Your task to perform on an android device: turn off picture-in-picture Image 0: 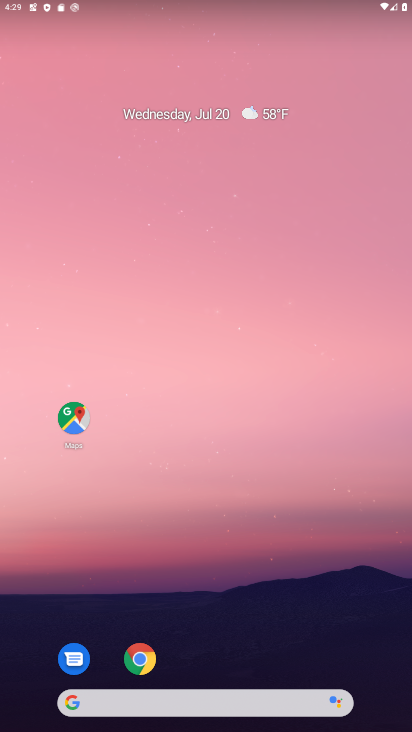
Step 0: drag from (171, 693) to (378, 153)
Your task to perform on an android device: turn off picture-in-picture Image 1: 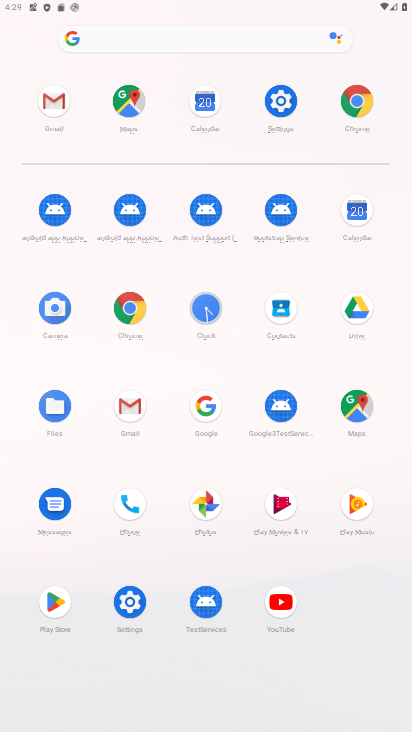
Step 1: click (279, 108)
Your task to perform on an android device: turn off picture-in-picture Image 2: 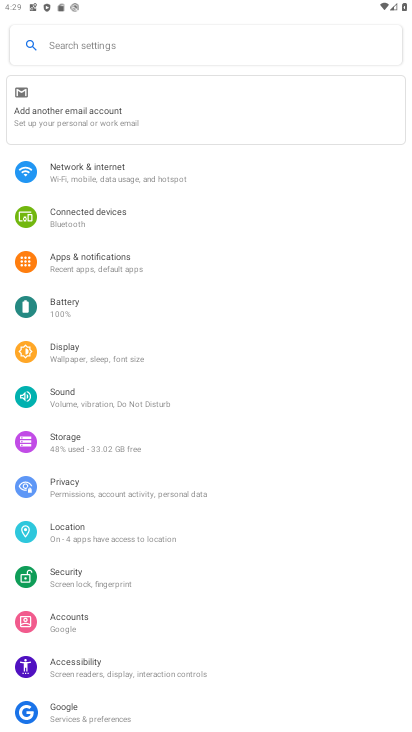
Step 2: click (115, 267)
Your task to perform on an android device: turn off picture-in-picture Image 3: 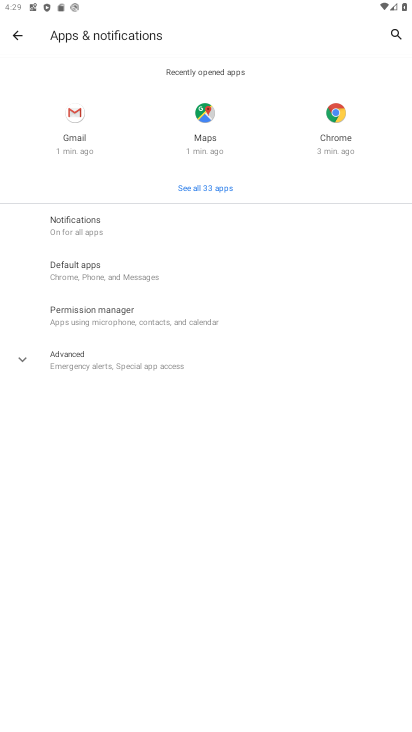
Step 3: click (101, 366)
Your task to perform on an android device: turn off picture-in-picture Image 4: 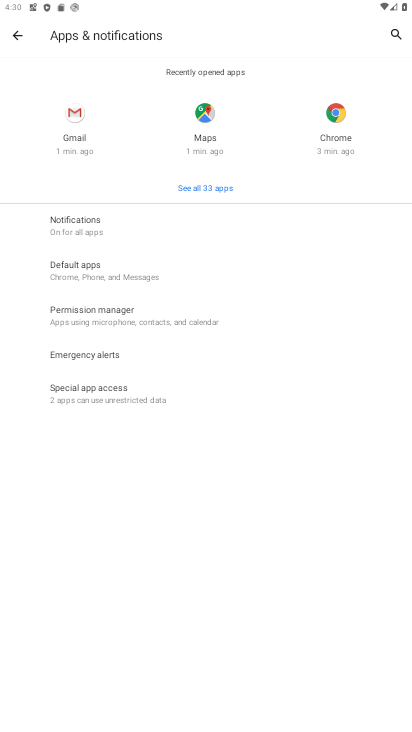
Step 4: click (101, 395)
Your task to perform on an android device: turn off picture-in-picture Image 5: 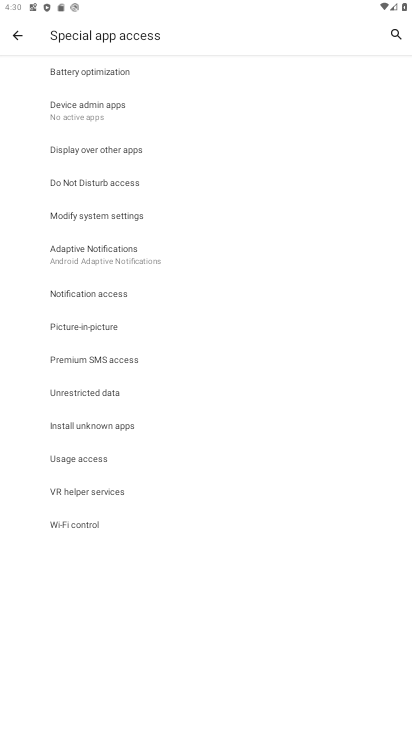
Step 5: click (100, 331)
Your task to perform on an android device: turn off picture-in-picture Image 6: 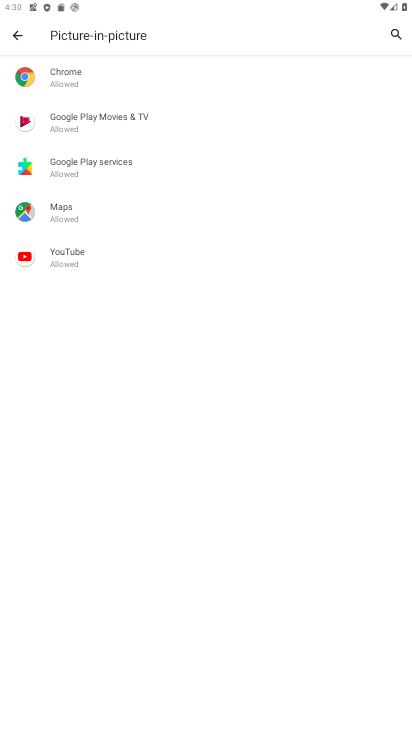
Step 6: click (66, 76)
Your task to perform on an android device: turn off picture-in-picture Image 7: 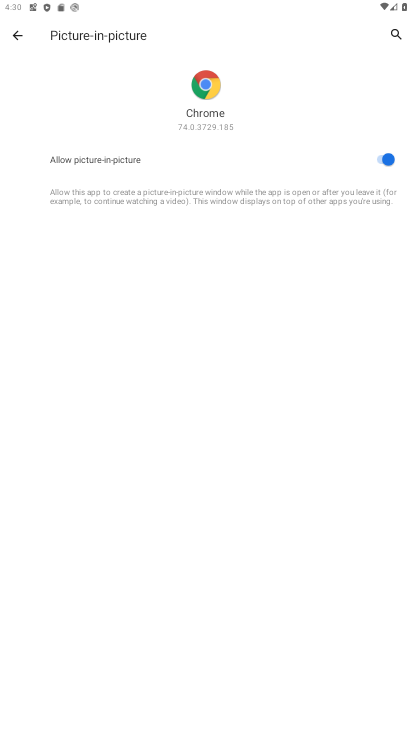
Step 7: click (382, 156)
Your task to perform on an android device: turn off picture-in-picture Image 8: 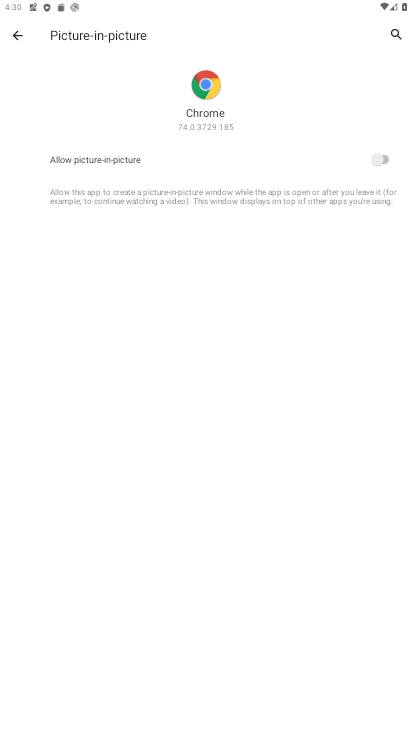
Step 8: press back button
Your task to perform on an android device: turn off picture-in-picture Image 9: 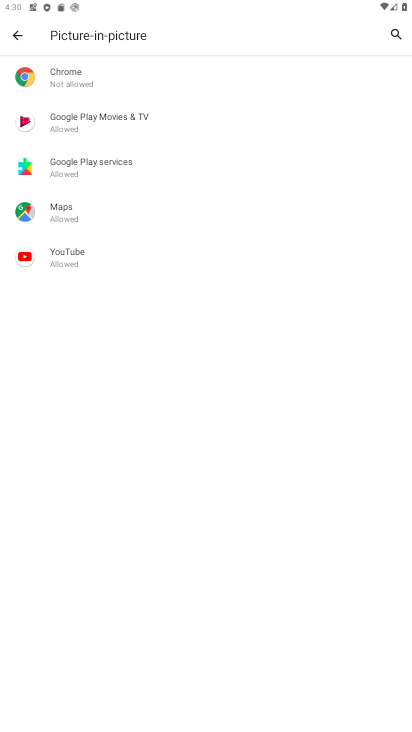
Step 9: click (108, 125)
Your task to perform on an android device: turn off picture-in-picture Image 10: 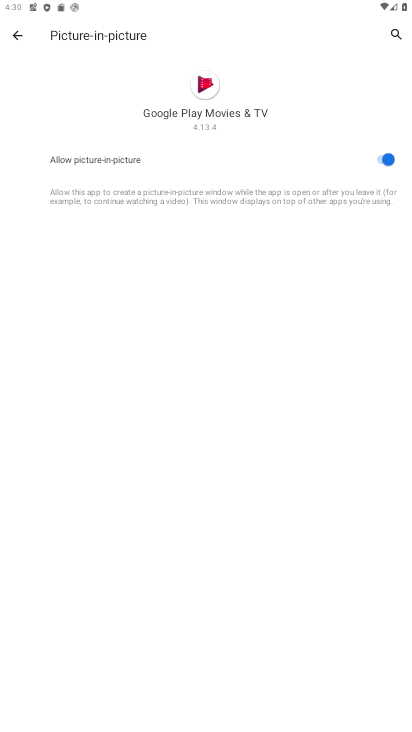
Step 10: click (383, 153)
Your task to perform on an android device: turn off picture-in-picture Image 11: 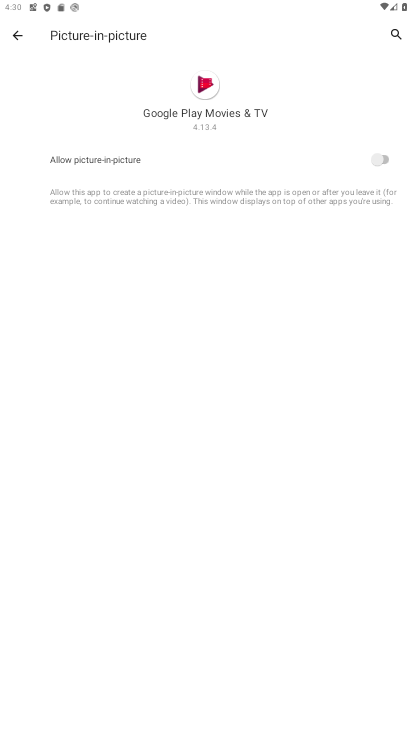
Step 11: press back button
Your task to perform on an android device: turn off picture-in-picture Image 12: 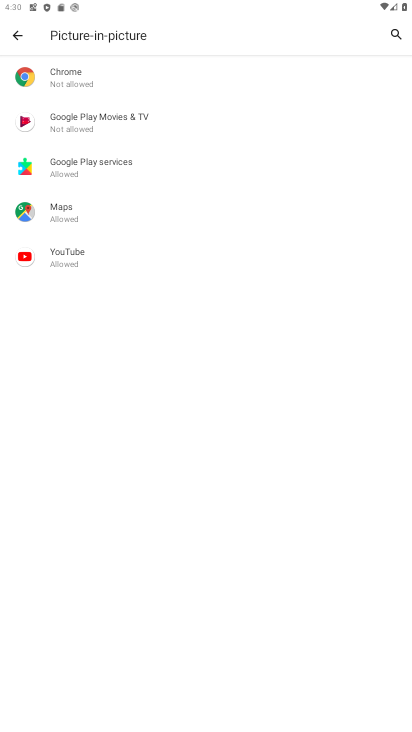
Step 12: click (86, 163)
Your task to perform on an android device: turn off picture-in-picture Image 13: 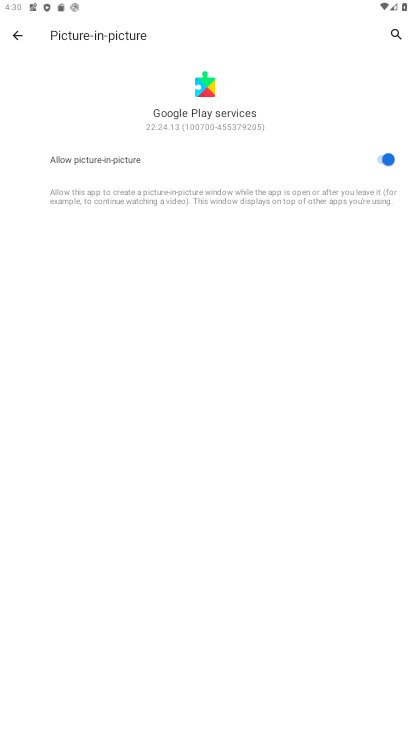
Step 13: click (386, 155)
Your task to perform on an android device: turn off picture-in-picture Image 14: 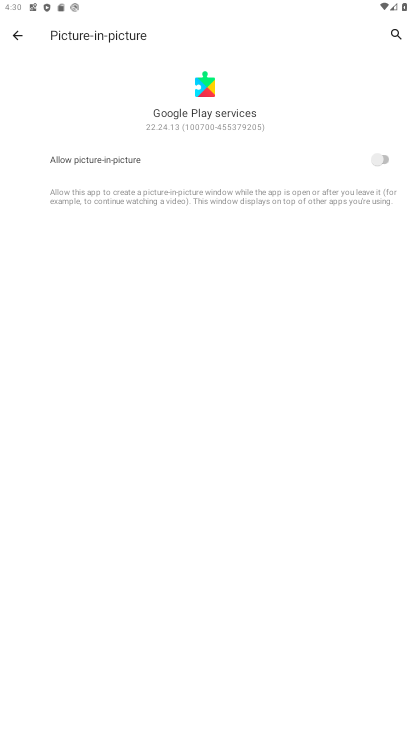
Step 14: press back button
Your task to perform on an android device: turn off picture-in-picture Image 15: 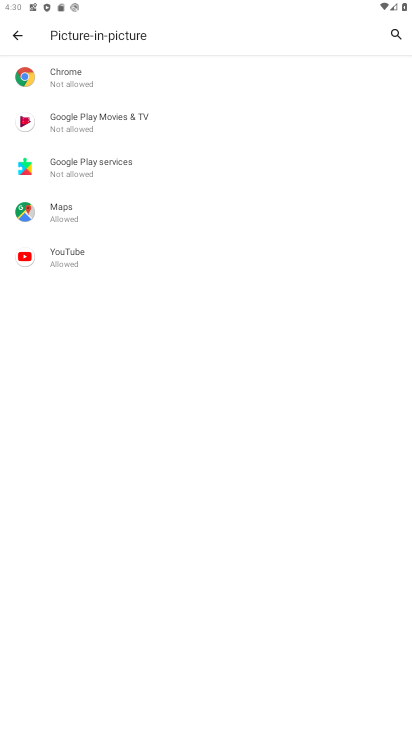
Step 15: click (66, 209)
Your task to perform on an android device: turn off picture-in-picture Image 16: 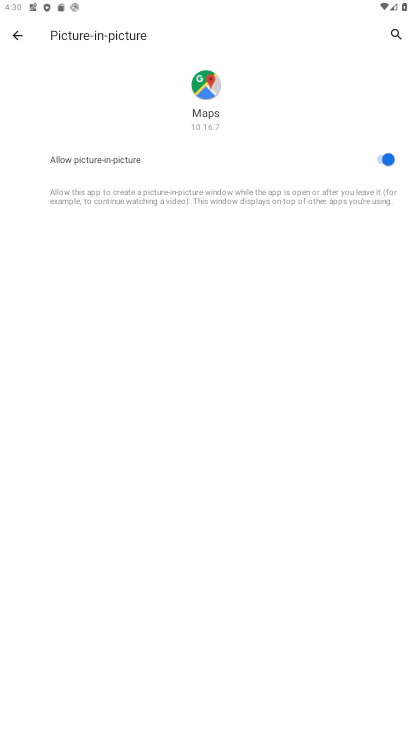
Step 16: click (382, 154)
Your task to perform on an android device: turn off picture-in-picture Image 17: 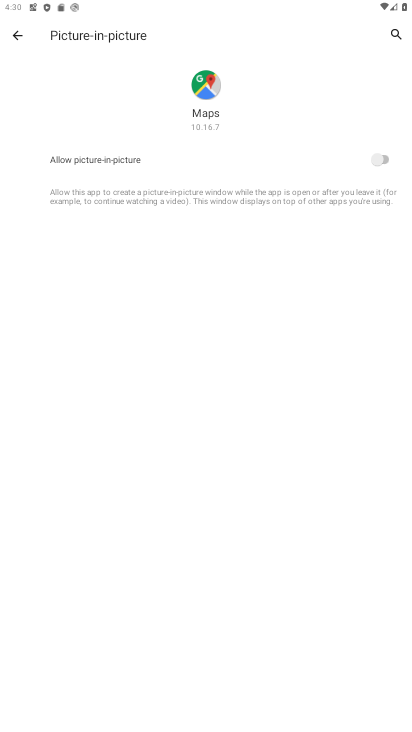
Step 17: press back button
Your task to perform on an android device: turn off picture-in-picture Image 18: 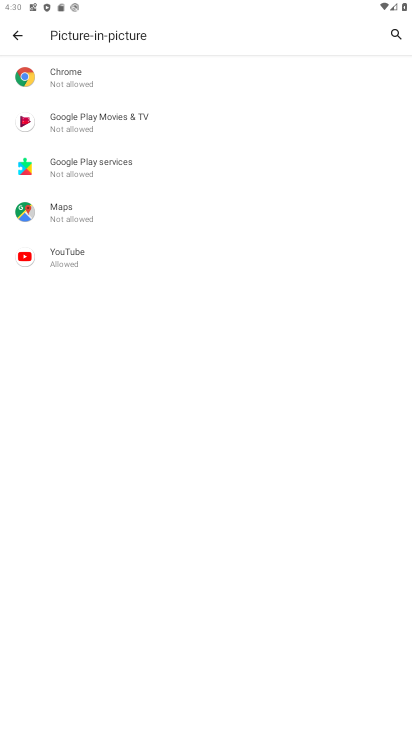
Step 18: click (67, 262)
Your task to perform on an android device: turn off picture-in-picture Image 19: 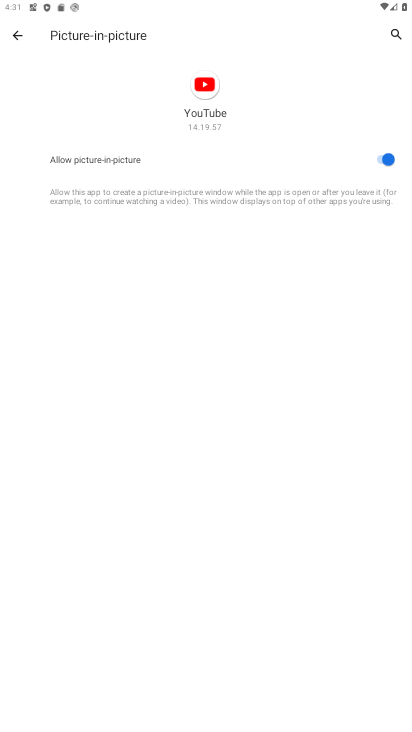
Step 19: click (380, 157)
Your task to perform on an android device: turn off picture-in-picture Image 20: 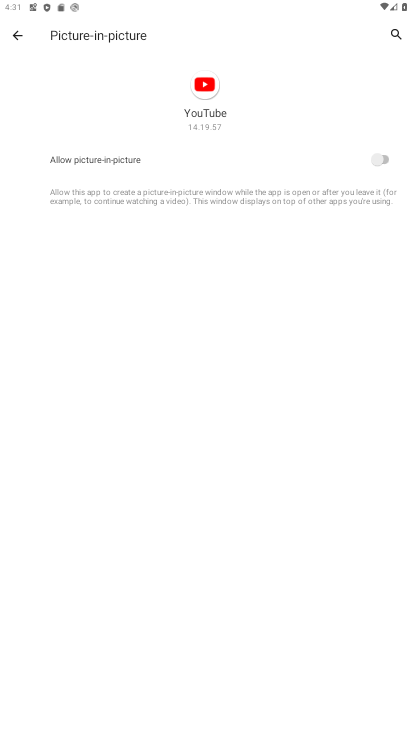
Step 20: task complete